Your task to perform on an android device: read, delete, or share a saved page in the chrome app Image 0: 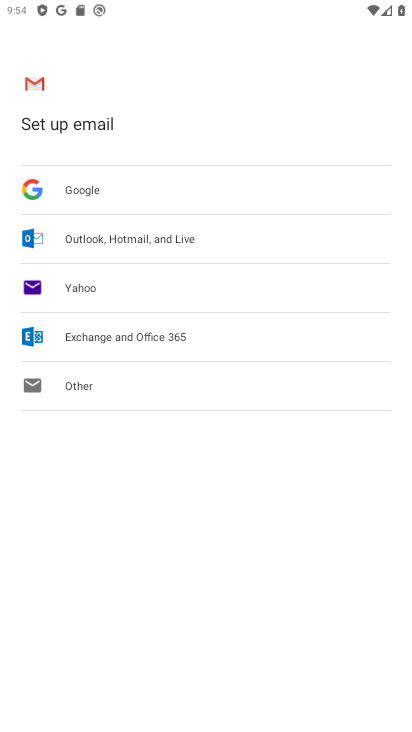
Step 0: press home button
Your task to perform on an android device: read, delete, or share a saved page in the chrome app Image 1: 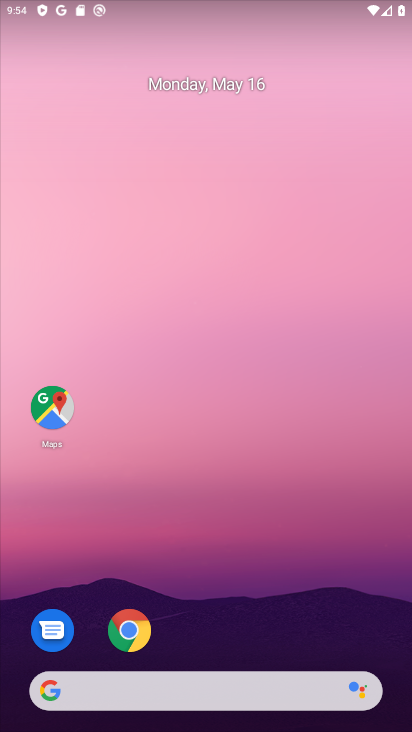
Step 1: drag from (231, 626) to (314, 151)
Your task to perform on an android device: read, delete, or share a saved page in the chrome app Image 2: 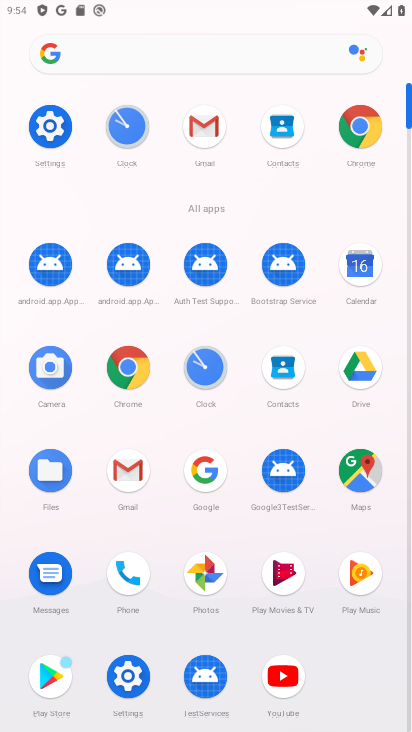
Step 2: click (127, 380)
Your task to perform on an android device: read, delete, or share a saved page in the chrome app Image 3: 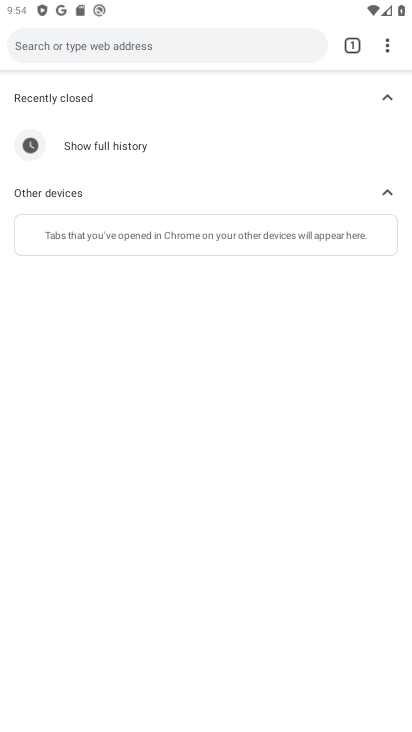
Step 3: click (389, 45)
Your task to perform on an android device: read, delete, or share a saved page in the chrome app Image 4: 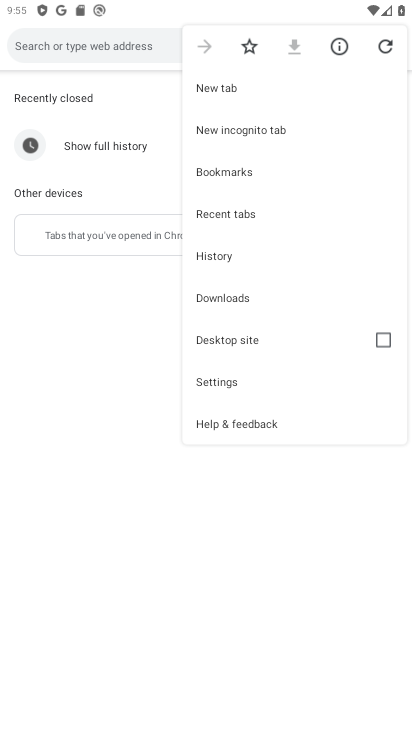
Step 4: click (233, 296)
Your task to perform on an android device: read, delete, or share a saved page in the chrome app Image 5: 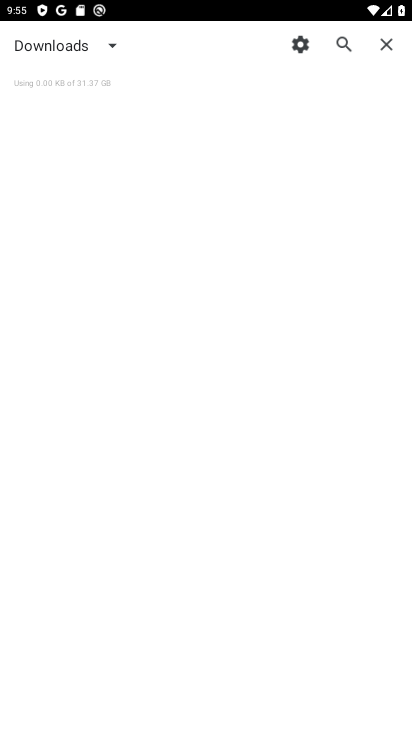
Step 5: task complete